Your task to perform on an android device: Open Google Image 0: 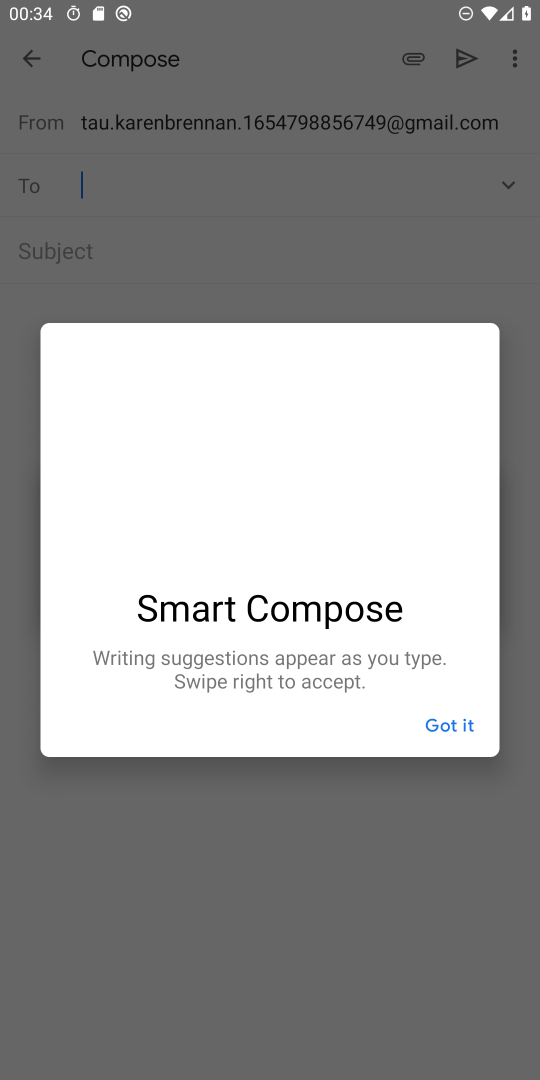
Step 0: press home button
Your task to perform on an android device: Open Google Image 1: 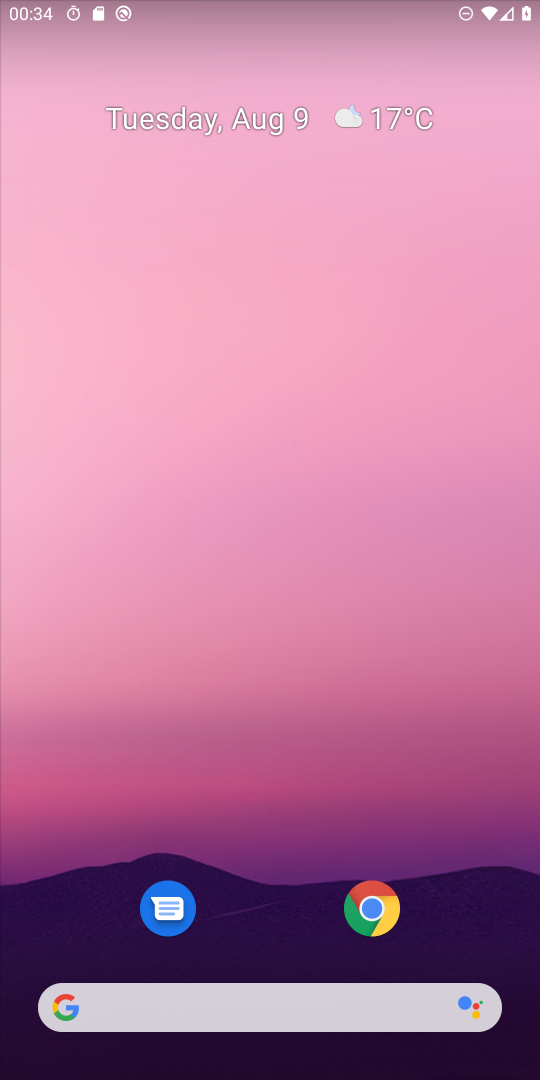
Step 1: drag from (480, 921) to (336, 185)
Your task to perform on an android device: Open Google Image 2: 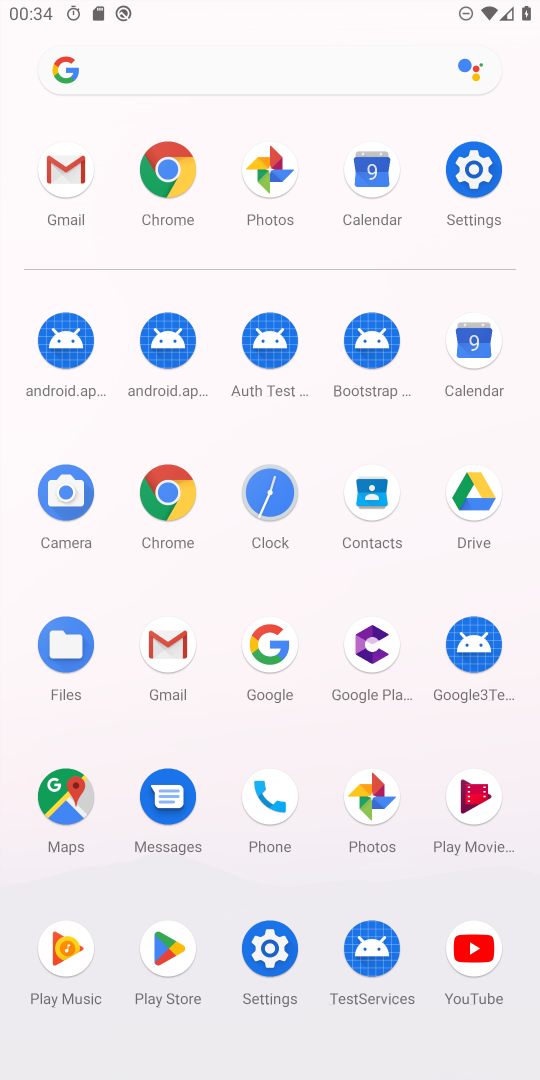
Step 2: click (274, 651)
Your task to perform on an android device: Open Google Image 3: 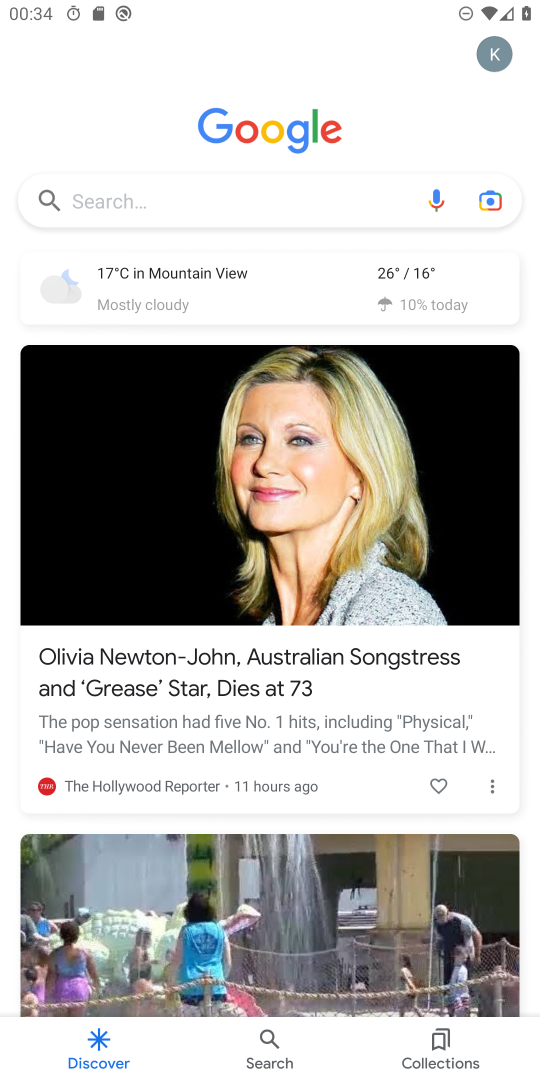
Step 3: task complete